Your task to perform on an android device: Open sound settings Image 0: 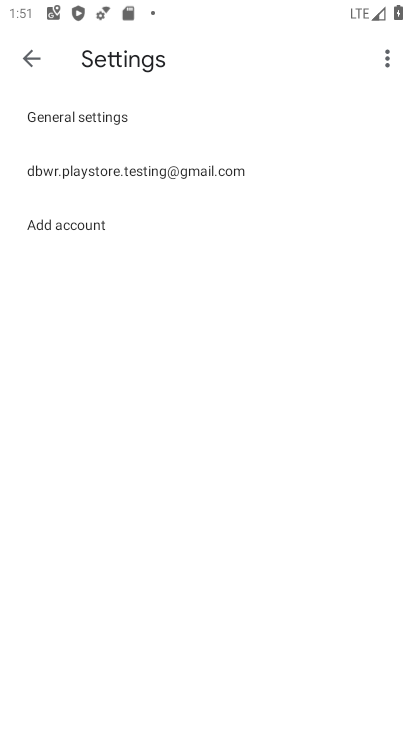
Step 0: press home button
Your task to perform on an android device: Open sound settings Image 1: 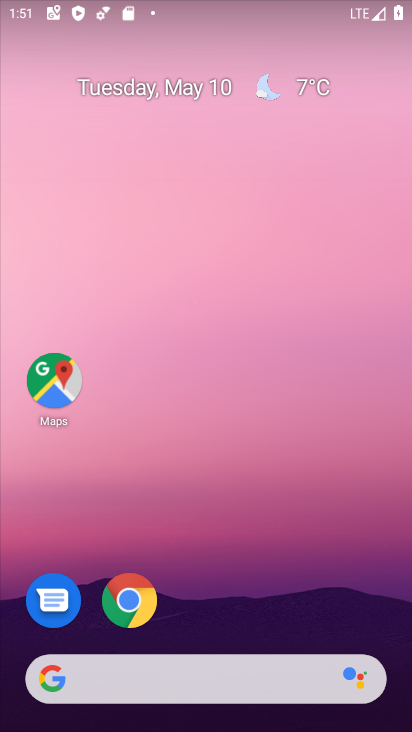
Step 1: drag from (198, 678) to (250, 117)
Your task to perform on an android device: Open sound settings Image 2: 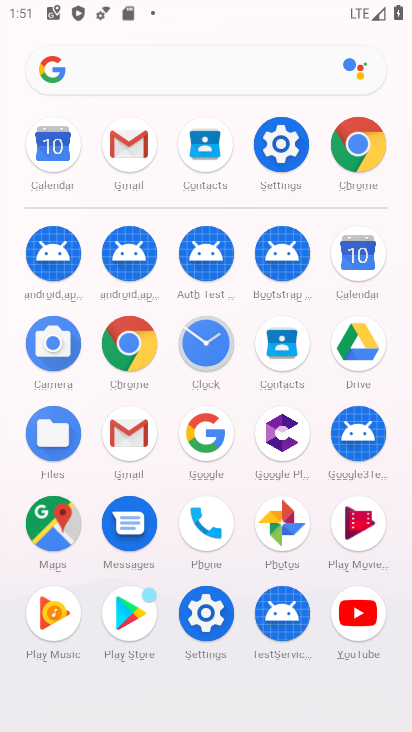
Step 2: click (277, 155)
Your task to perform on an android device: Open sound settings Image 3: 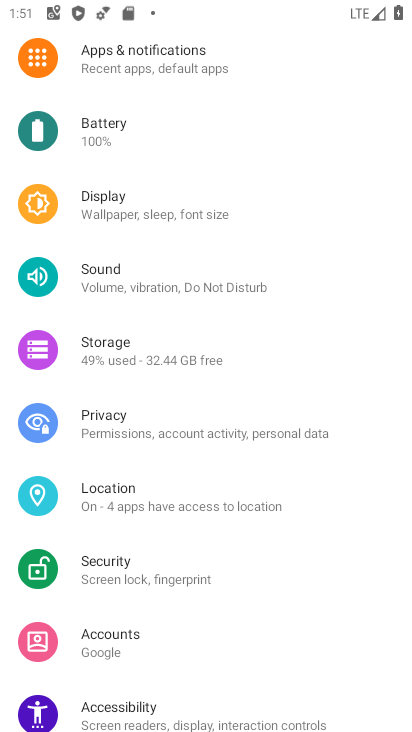
Step 3: click (120, 282)
Your task to perform on an android device: Open sound settings Image 4: 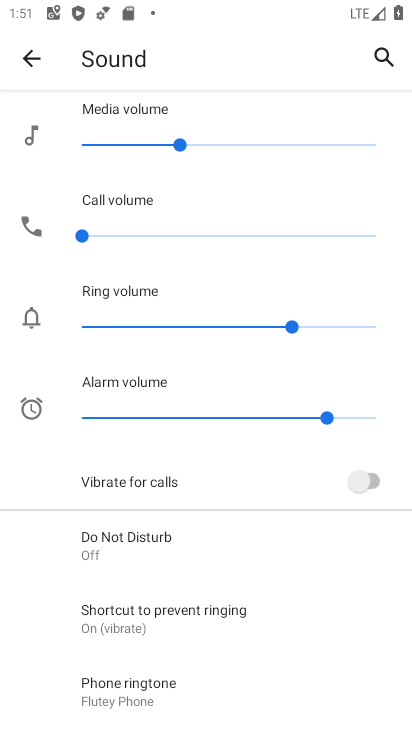
Step 4: task complete